Your task to perform on an android device: open sync settings in chrome Image 0: 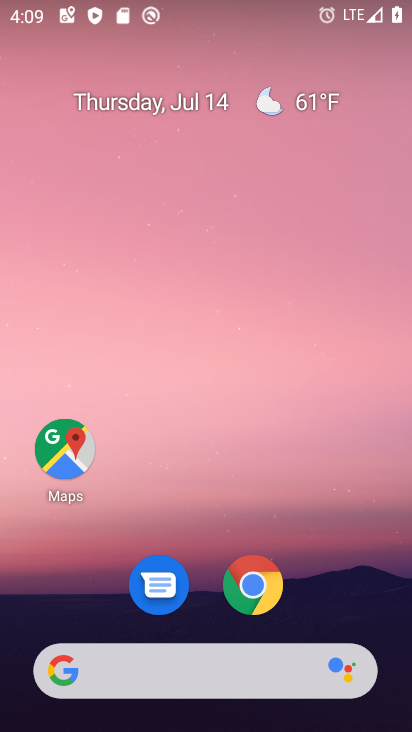
Step 0: click (251, 579)
Your task to perform on an android device: open sync settings in chrome Image 1: 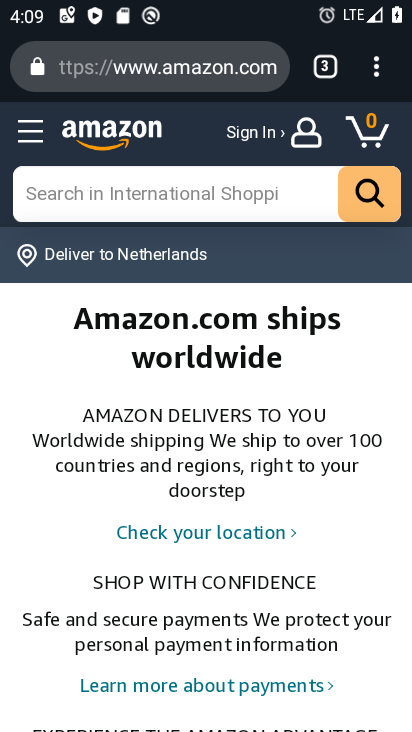
Step 1: click (377, 77)
Your task to perform on an android device: open sync settings in chrome Image 2: 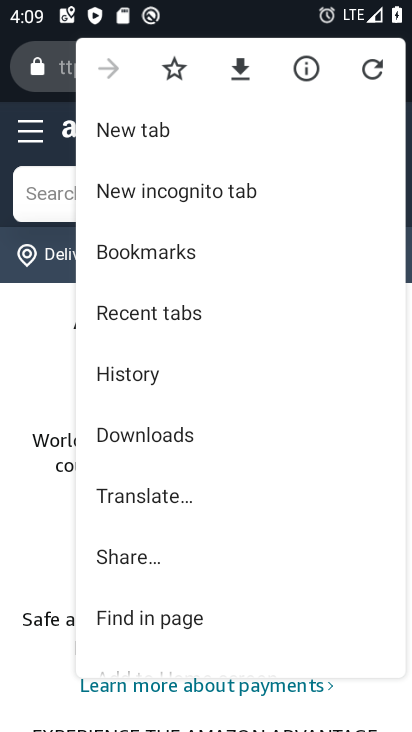
Step 2: drag from (181, 493) to (236, 199)
Your task to perform on an android device: open sync settings in chrome Image 3: 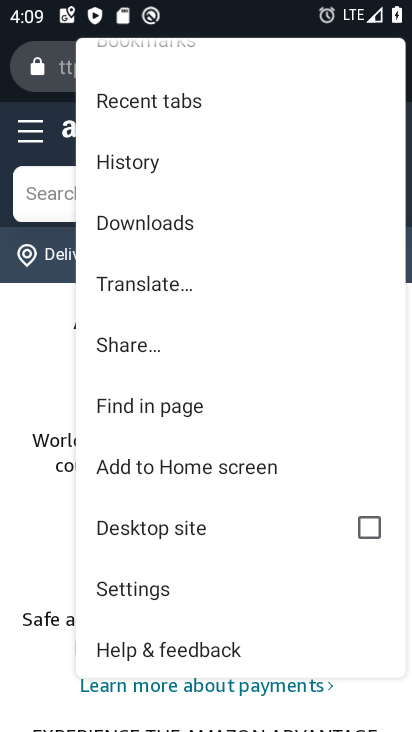
Step 3: click (142, 581)
Your task to perform on an android device: open sync settings in chrome Image 4: 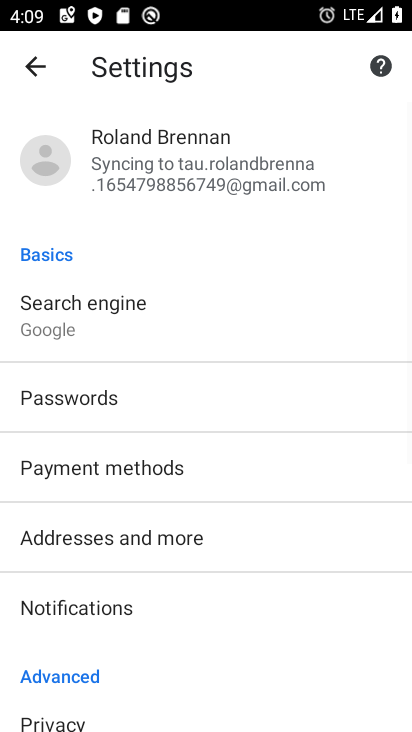
Step 4: click (199, 144)
Your task to perform on an android device: open sync settings in chrome Image 5: 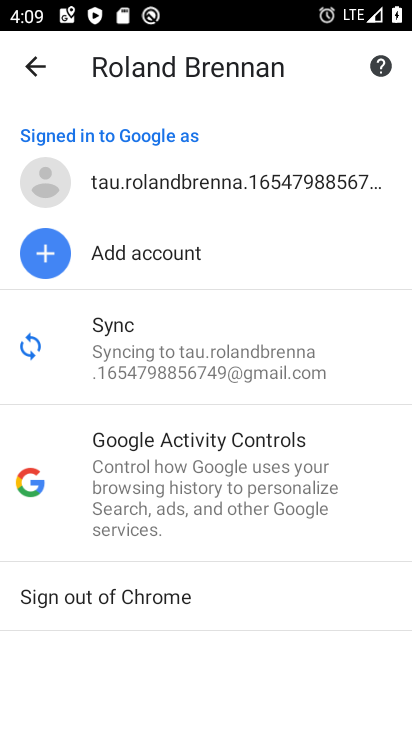
Step 5: click (169, 353)
Your task to perform on an android device: open sync settings in chrome Image 6: 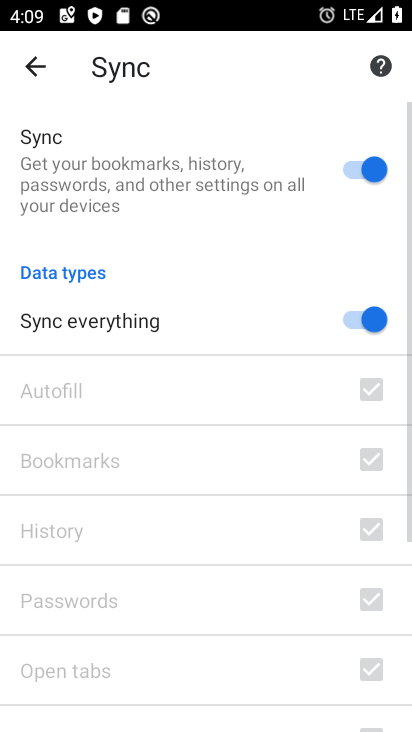
Step 6: task complete